Your task to perform on an android device: toggle sleep mode Image 0: 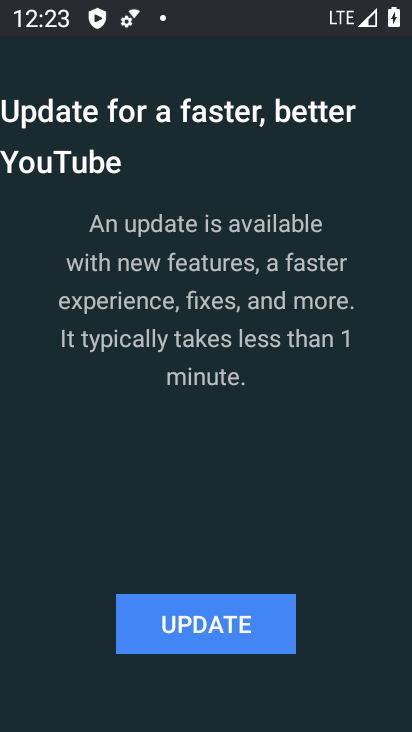
Step 0: press home button
Your task to perform on an android device: toggle sleep mode Image 1: 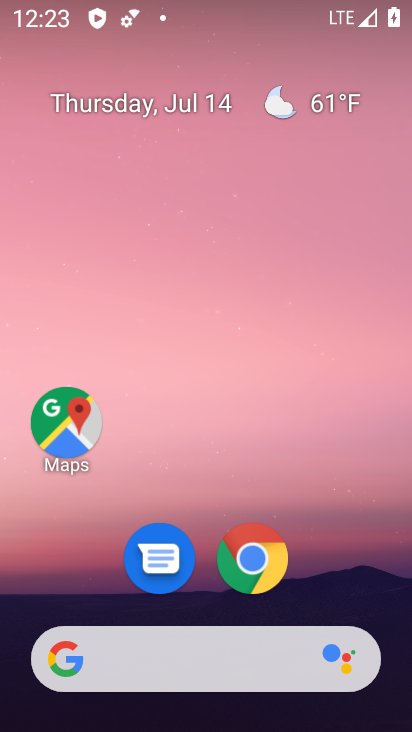
Step 1: drag from (213, 589) to (270, 5)
Your task to perform on an android device: toggle sleep mode Image 2: 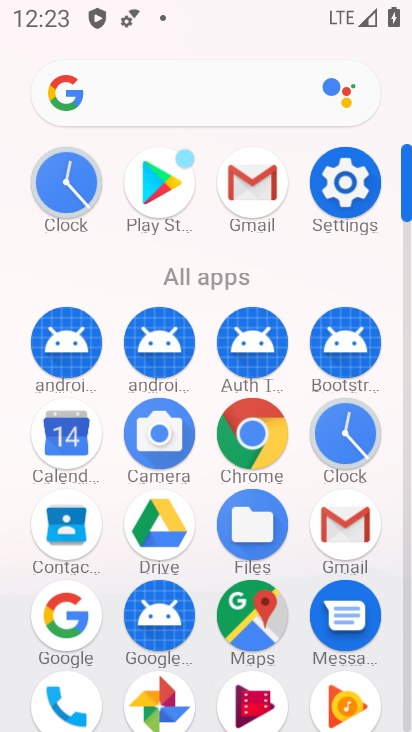
Step 2: click (334, 168)
Your task to perform on an android device: toggle sleep mode Image 3: 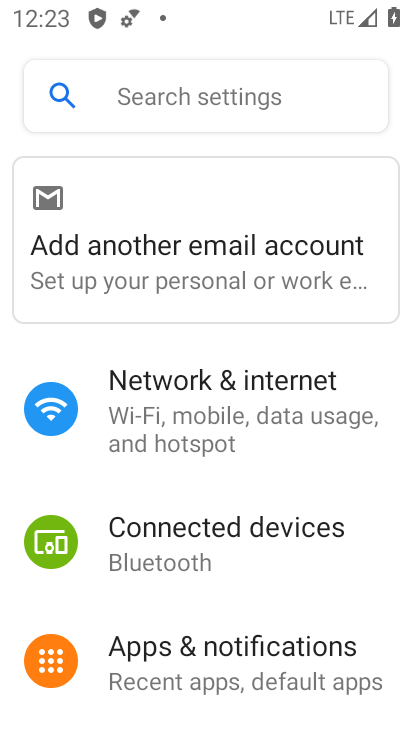
Step 3: click (193, 89)
Your task to perform on an android device: toggle sleep mode Image 4: 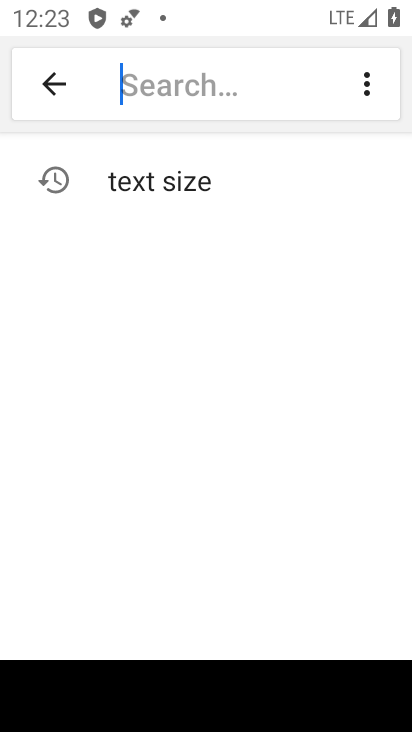
Step 4: type "sleep mode"
Your task to perform on an android device: toggle sleep mode Image 5: 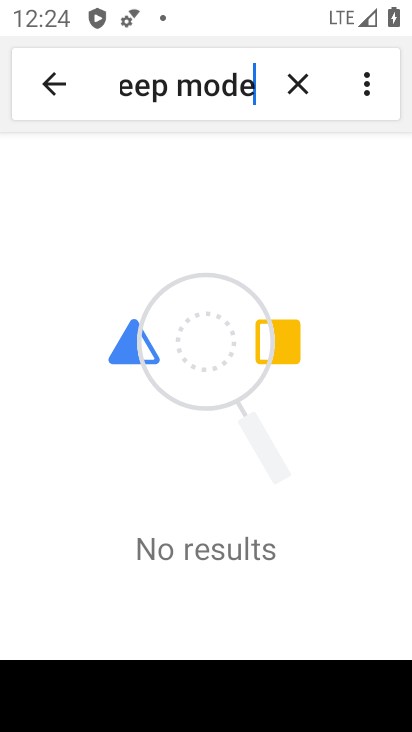
Step 5: task complete